Your task to perform on an android device: turn off data saver in the chrome app Image 0: 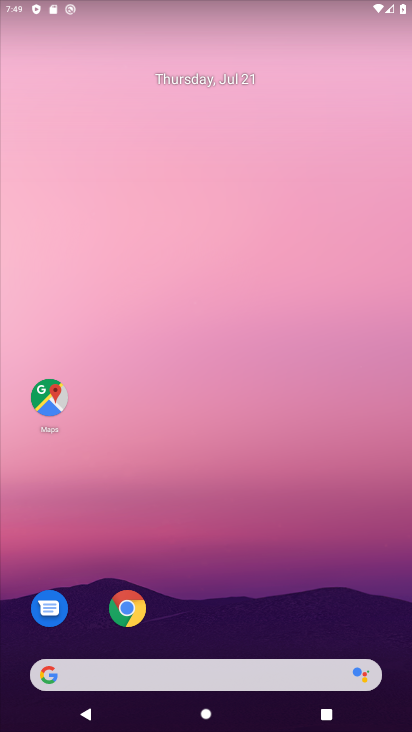
Step 0: click (132, 598)
Your task to perform on an android device: turn off data saver in the chrome app Image 1: 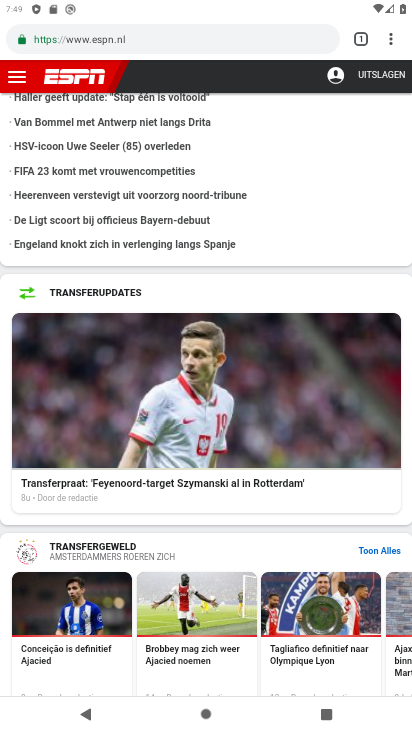
Step 1: click (389, 45)
Your task to perform on an android device: turn off data saver in the chrome app Image 2: 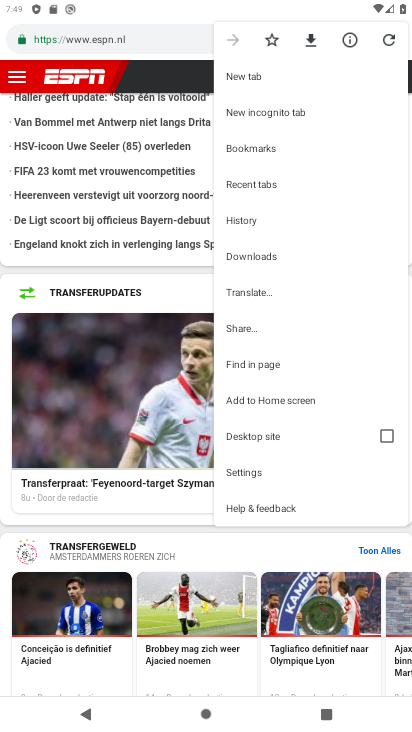
Step 2: click (264, 469)
Your task to perform on an android device: turn off data saver in the chrome app Image 3: 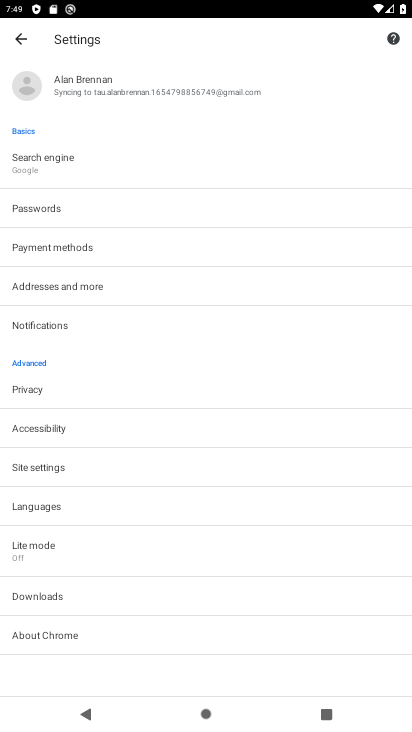
Step 3: click (48, 556)
Your task to perform on an android device: turn off data saver in the chrome app Image 4: 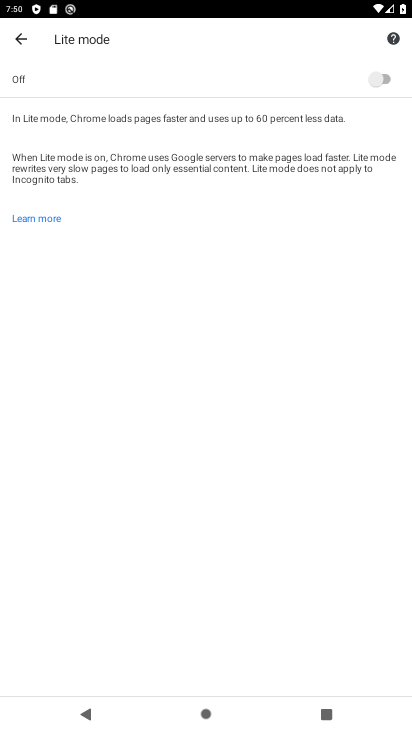
Step 4: task complete